Your task to perform on an android device: open app "Reddit" (install if not already installed) and enter user name: "issues@yahoo.com" and password: "belt" Image 0: 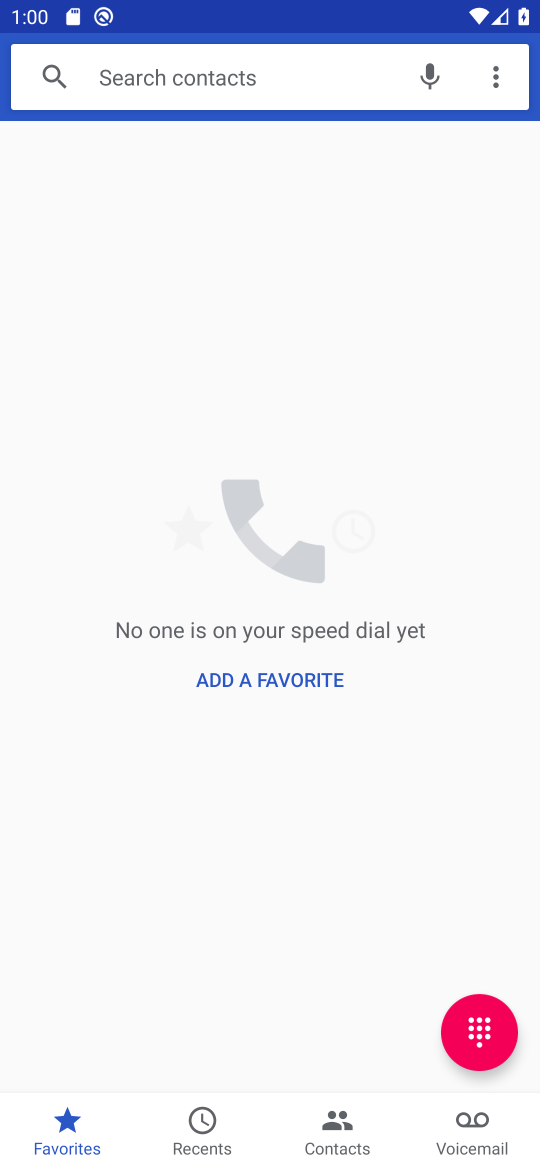
Step 0: press home button
Your task to perform on an android device: open app "Reddit" (install if not already installed) and enter user name: "issues@yahoo.com" and password: "belt" Image 1: 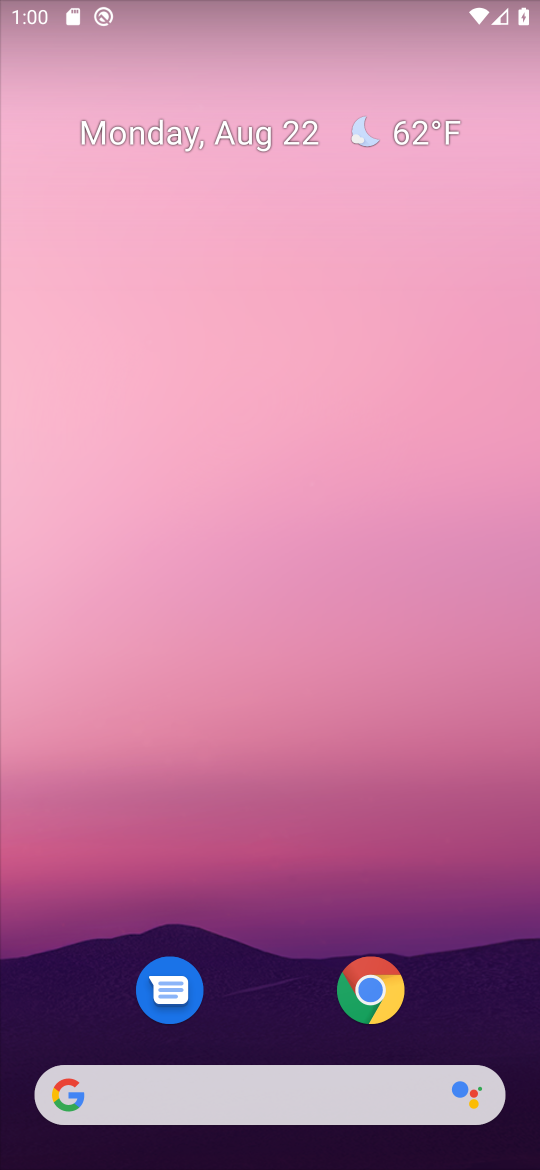
Step 1: drag from (268, 936) to (136, 343)
Your task to perform on an android device: open app "Reddit" (install if not already installed) and enter user name: "issues@yahoo.com" and password: "belt" Image 2: 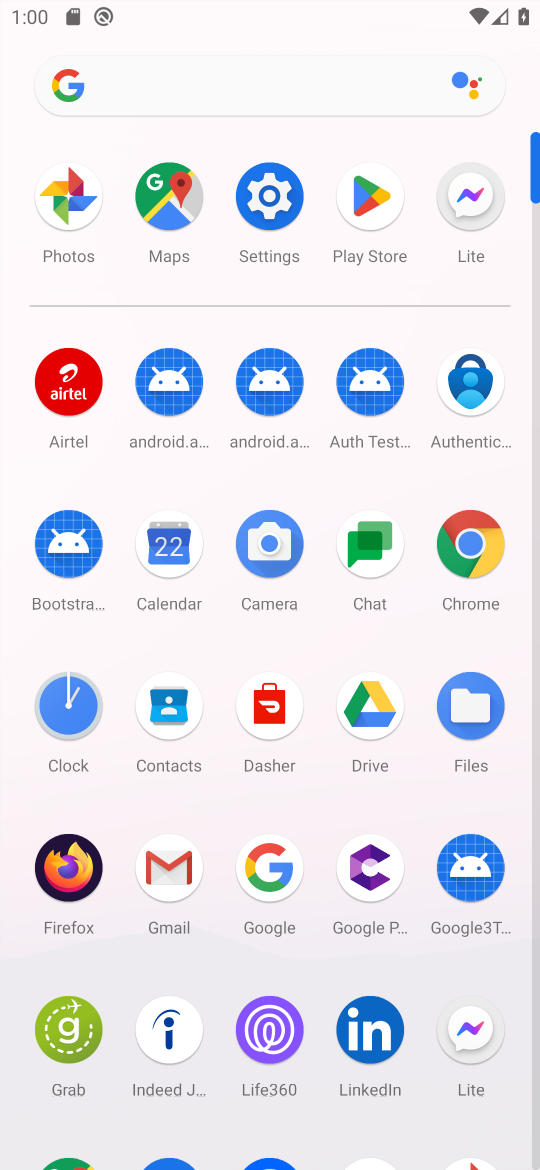
Step 2: click (370, 199)
Your task to perform on an android device: open app "Reddit" (install if not already installed) and enter user name: "issues@yahoo.com" and password: "belt" Image 3: 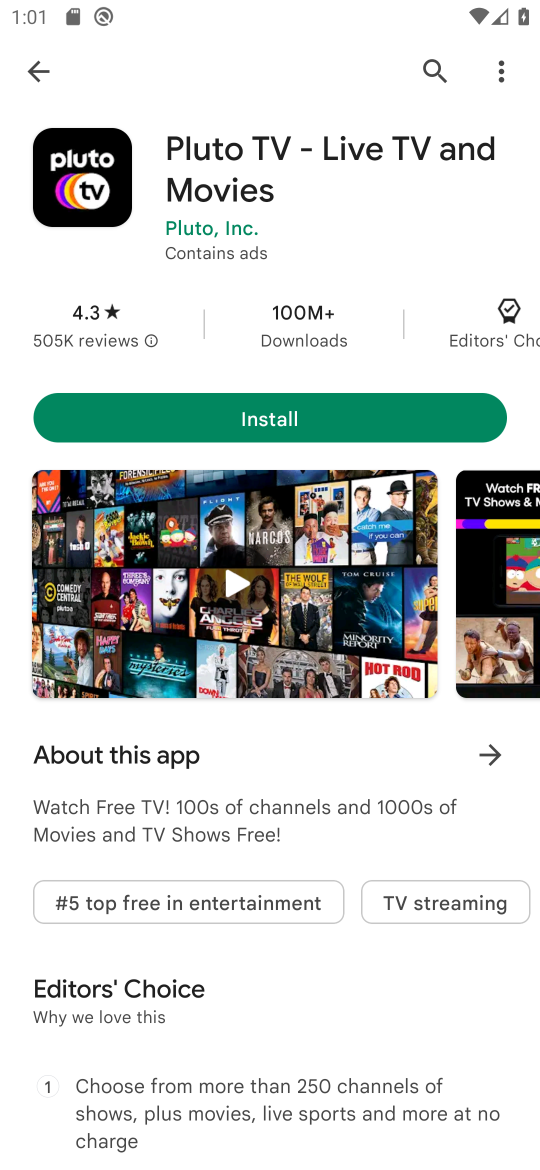
Step 3: click (416, 71)
Your task to perform on an android device: open app "Reddit" (install if not already installed) and enter user name: "issues@yahoo.com" and password: "belt" Image 4: 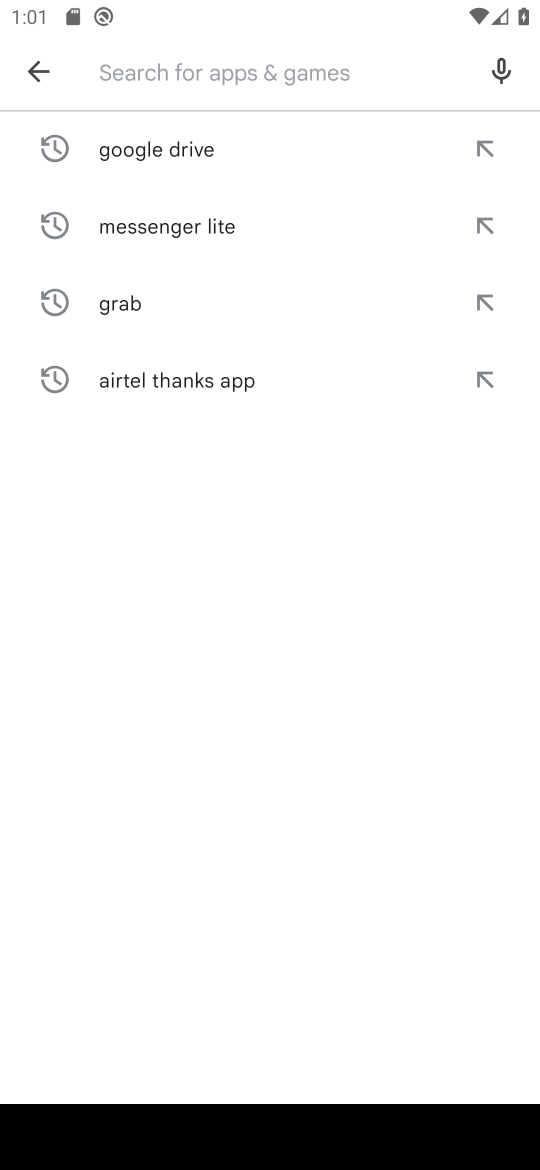
Step 4: type "Reddit"
Your task to perform on an android device: open app "Reddit" (install if not already installed) and enter user name: "issues@yahoo.com" and password: "belt" Image 5: 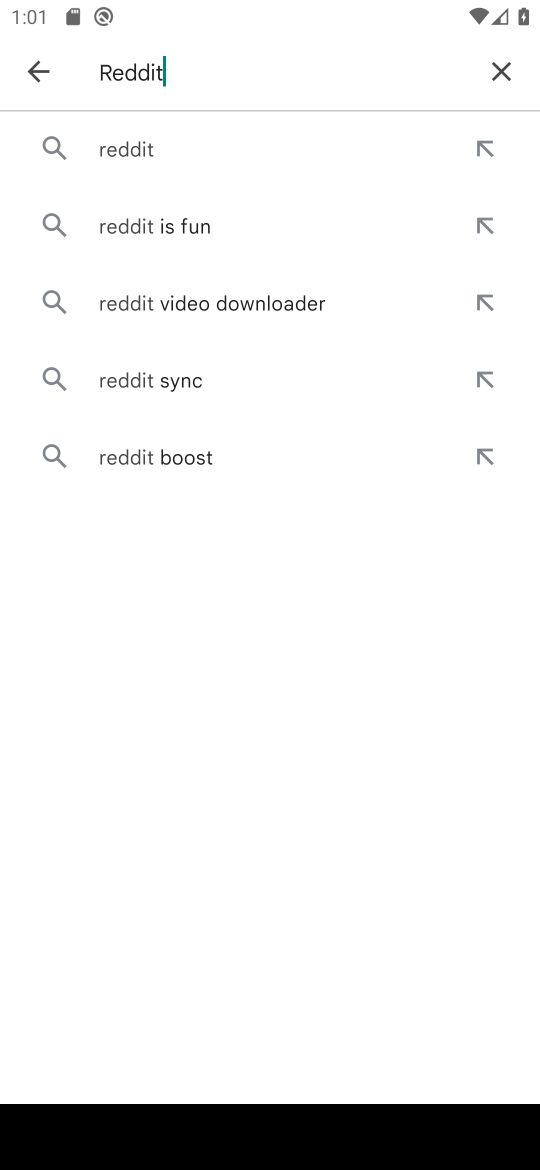
Step 5: click (160, 150)
Your task to perform on an android device: open app "Reddit" (install if not already installed) and enter user name: "issues@yahoo.com" and password: "belt" Image 6: 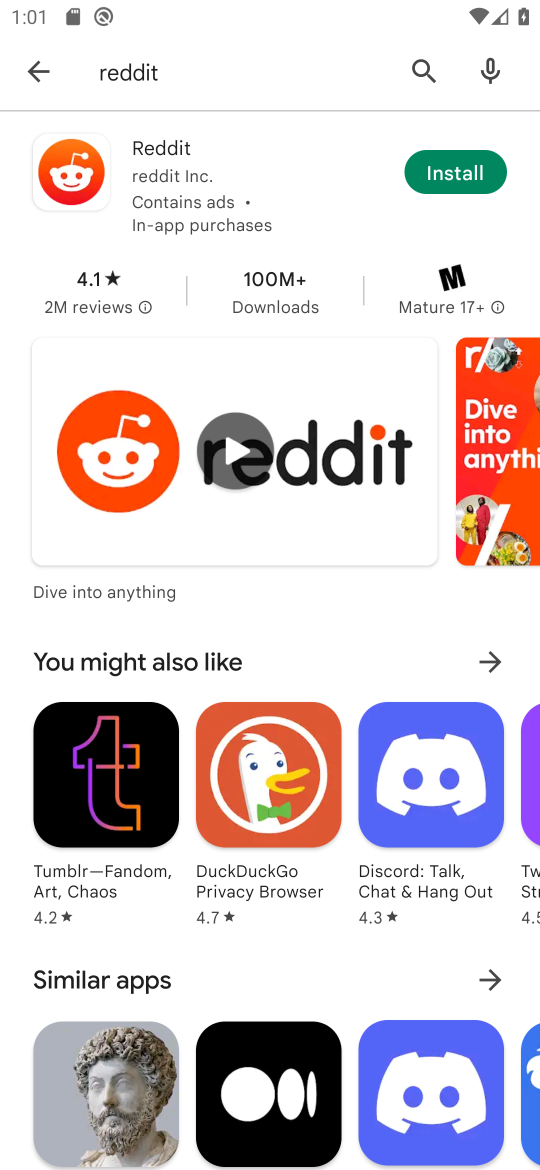
Step 6: click (467, 169)
Your task to perform on an android device: open app "Reddit" (install if not already installed) and enter user name: "issues@yahoo.com" and password: "belt" Image 7: 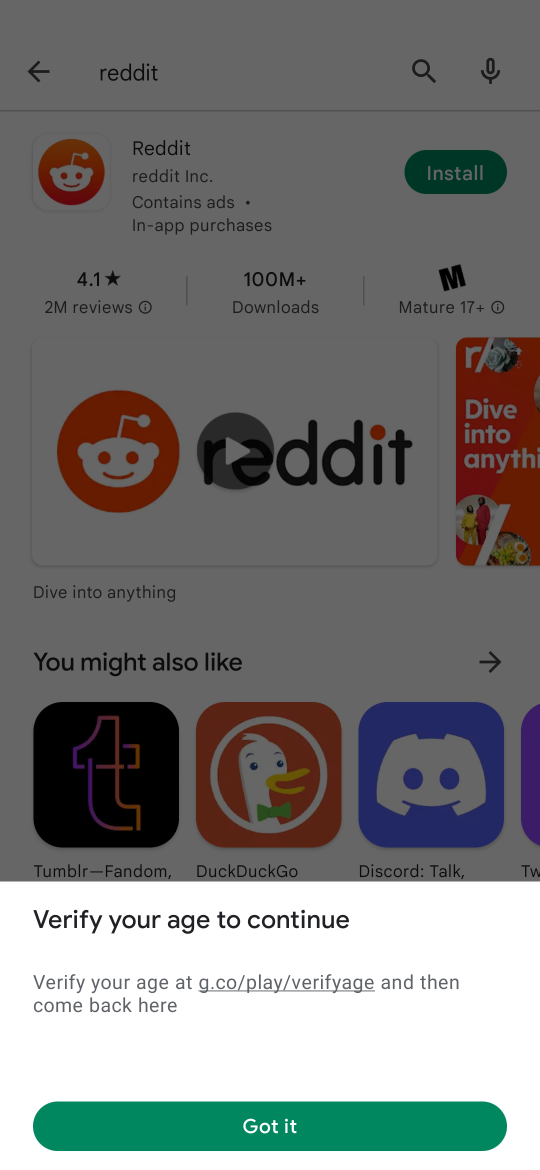
Step 7: click (286, 1131)
Your task to perform on an android device: open app "Reddit" (install if not already installed) and enter user name: "issues@yahoo.com" and password: "belt" Image 8: 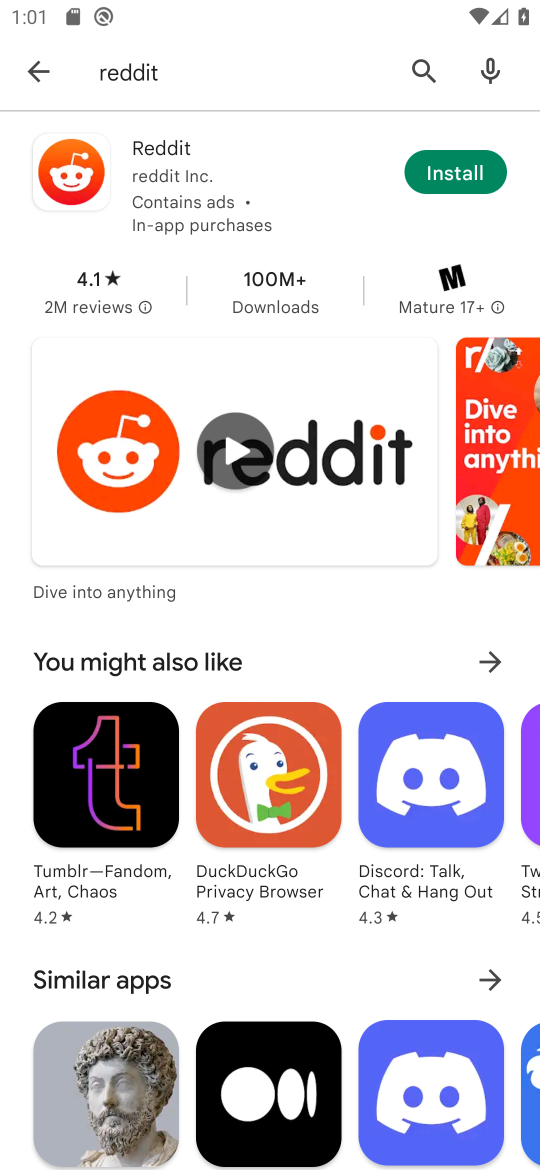
Step 8: click (426, 175)
Your task to perform on an android device: open app "Reddit" (install if not already installed) and enter user name: "issues@yahoo.com" and password: "belt" Image 9: 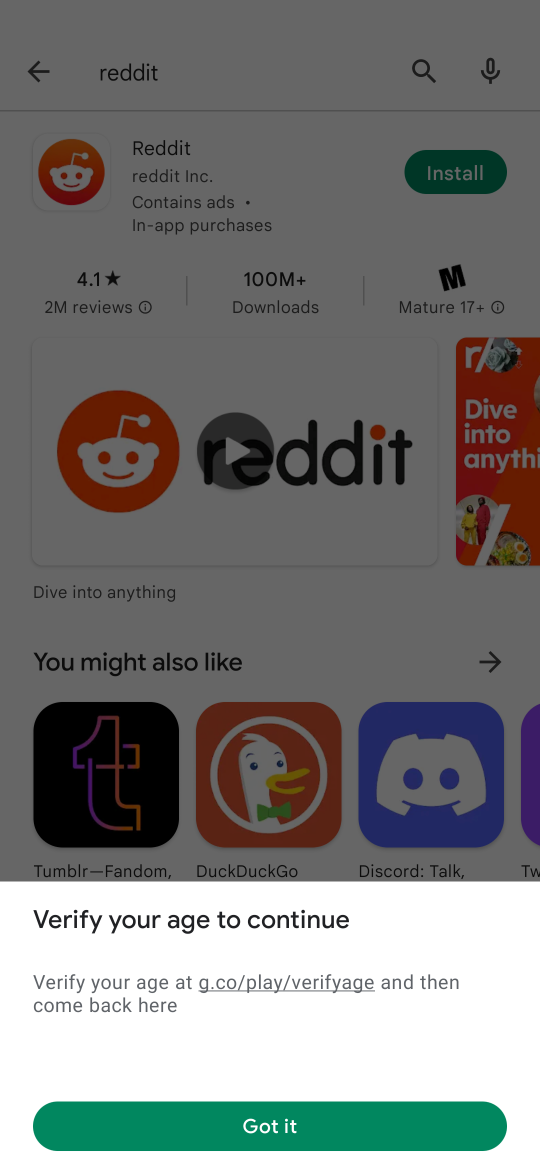
Step 9: click (423, 1134)
Your task to perform on an android device: open app "Reddit" (install if not already installed) and enter user name: "issues@yahoo.com" and password: "belt" Image 10: 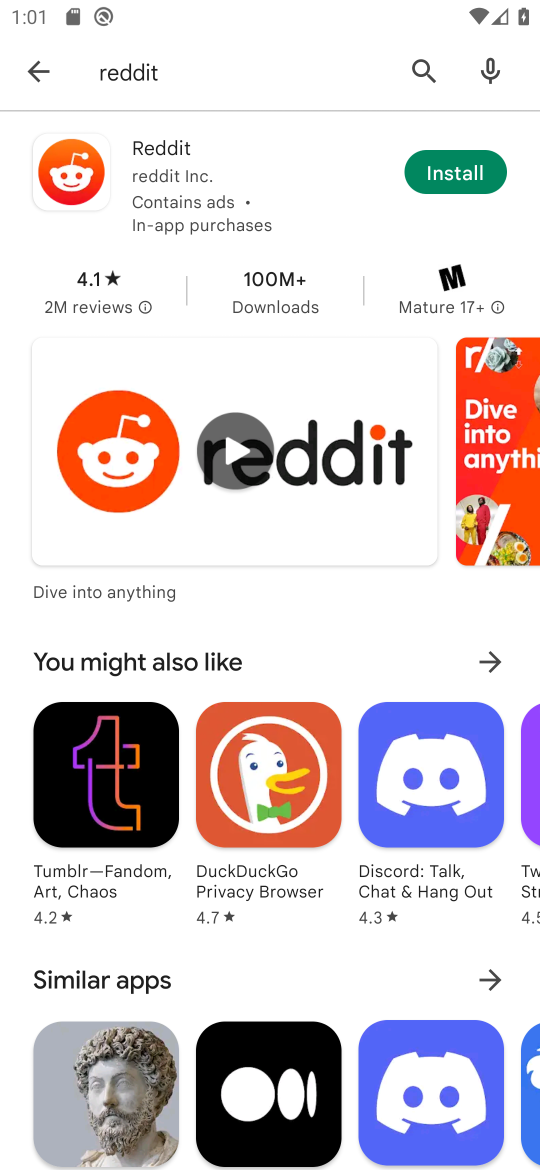
Step 10: click (473, 168)
Your task to perform on an android device: open app "Reddit" (install if not already installed) and enter user name: "issues@yahoo.com" and password: "belt" Image 11: 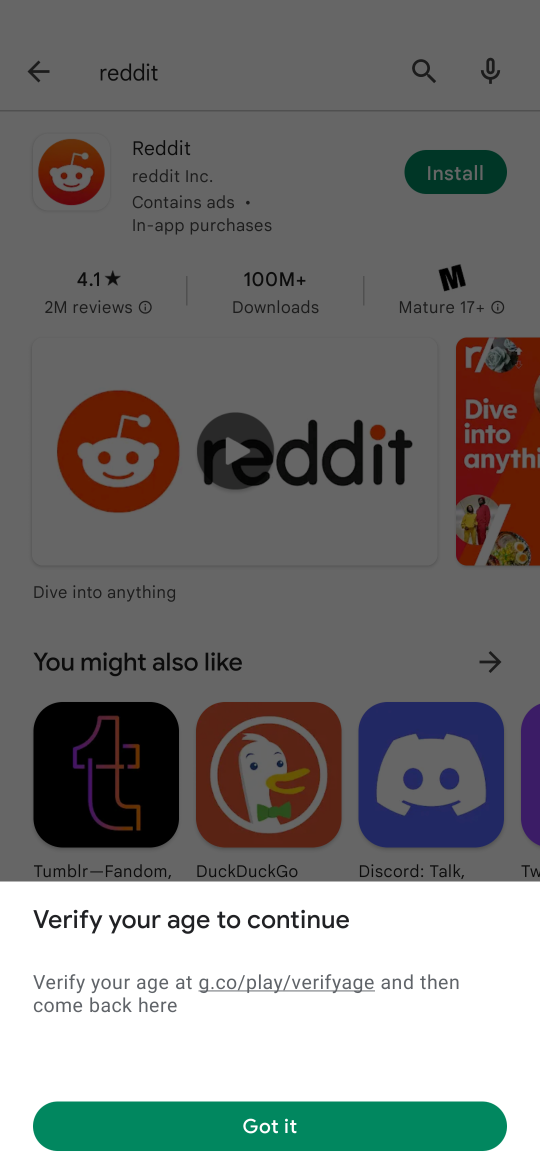
Step 11: click (203, 1122)
Your task to perform on an android device: open app "Reddit" (install if not already installed) and enter user name: "issues@yahoo.com" and password: "belt" Image 12: 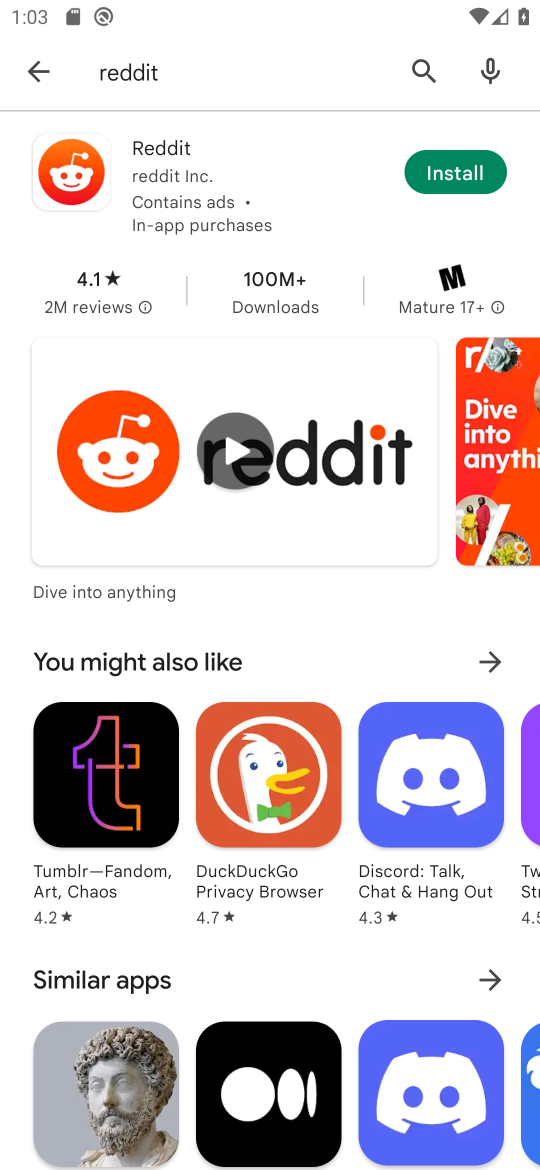
Step 12: click (452, 166)
Your task to perform on an android device: open app "Reddit" (install if not already installed) and enter user name: "issues@yahoo.com" and password: "belt" Image 13: 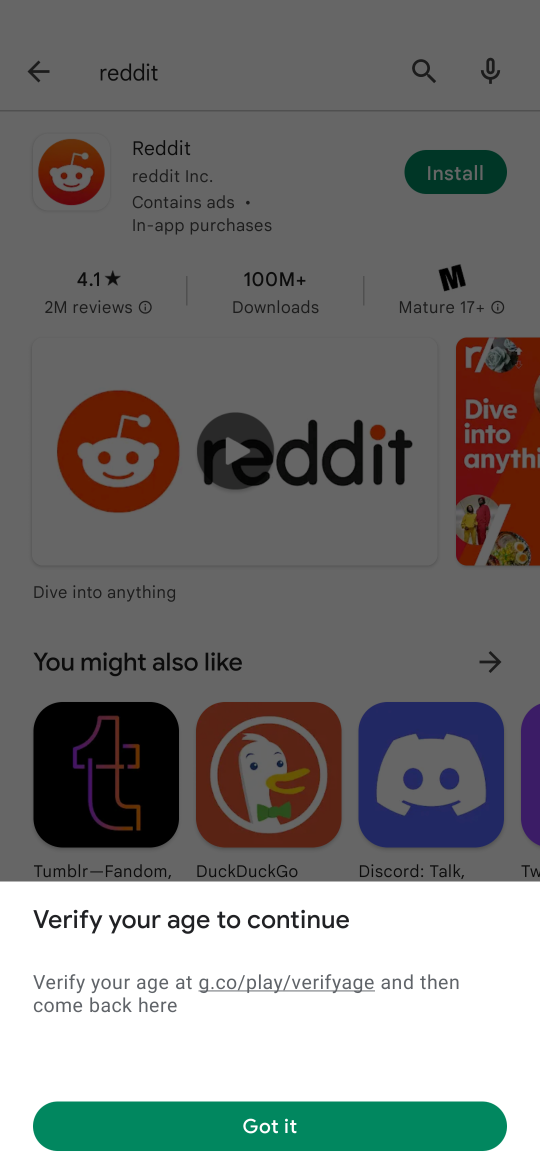
Step 13: click (247, 1123)
Your task to perform on an android device: open app "Reddit" (install if not already installed) and enter user name: "issues@yahoo.com" and password: "belt" Image 14: 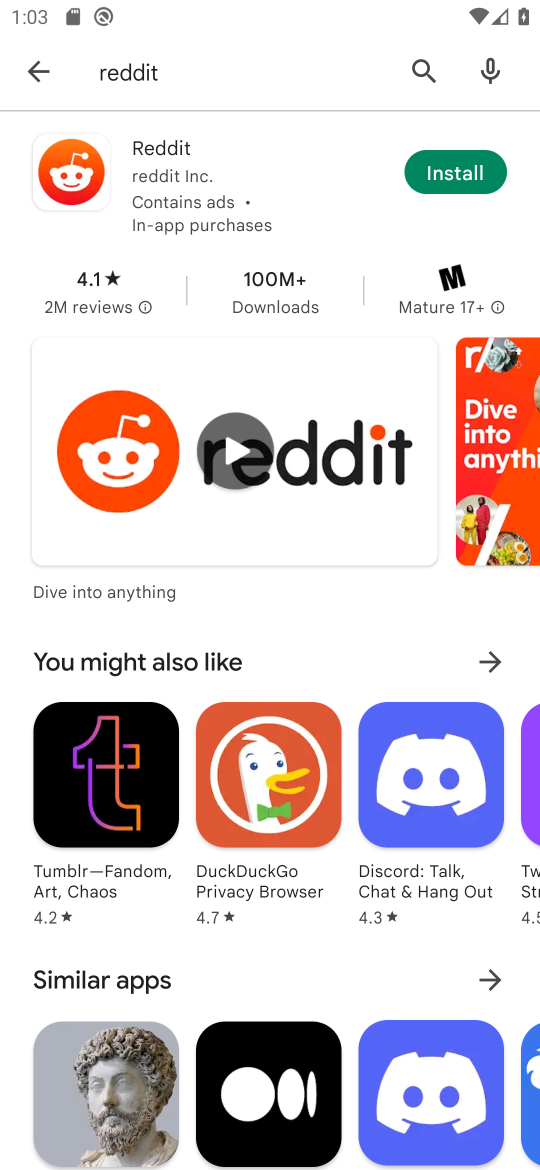
Step 14: click (452, 165)
Your task to perform on an android device: open app "Reddit" (install if not already installed) and enter user name: "issues@yahoo.com" and password: "belt" Image 15: 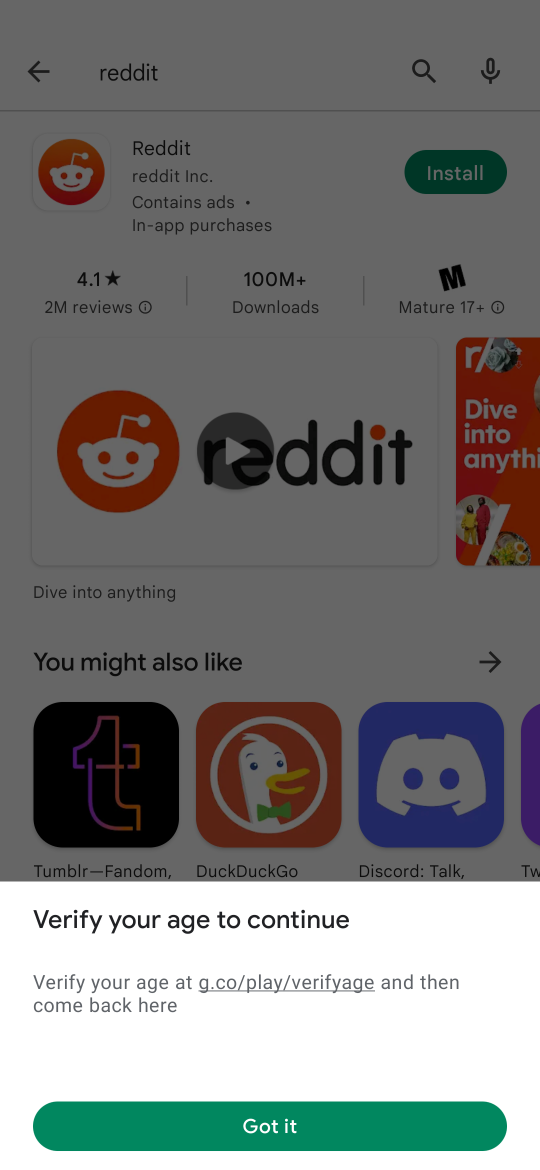
Step 15: click (304, 1120)
Your task to perform on an android device: open app "Reddit" (install if not already installed) and enter user name: "issues@yahoo.com" and password: "belt" Image 16: 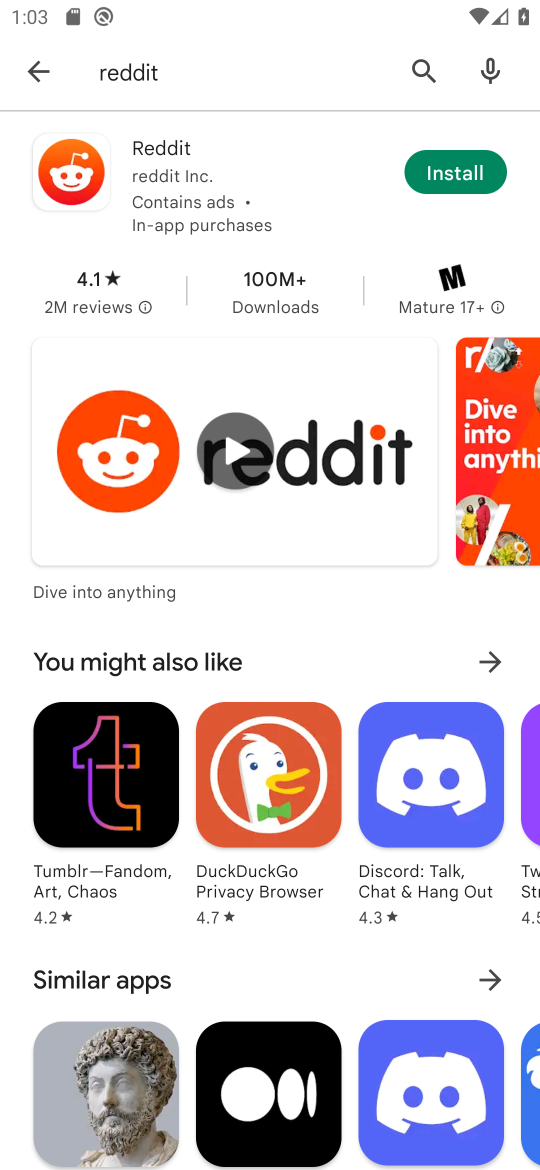
Step 16: task complete